Your task to perform on an android device: What's the weather going to be tomorrow? Image 0: 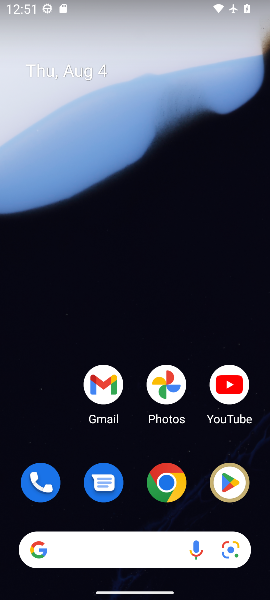
Step 0: drag from (129, 458) to (130, 130)
Your task to perform on an android device: What's the weather going to be tomorrow? Image 1: 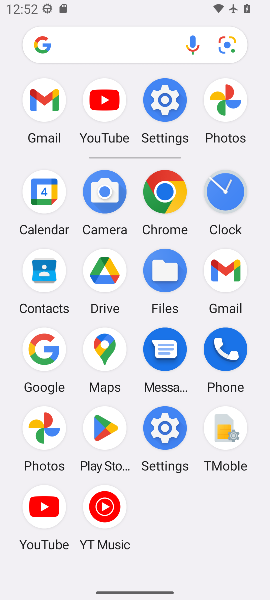
Step 1: click (56, 356)
Your task to perform on an android device: What's the weather going to be tomorrow? Image 2: 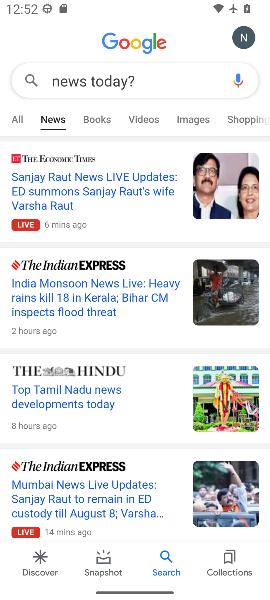
Step 2: click (151, 86)
Your task to perform on an android device: What's the weather going to be tomorrow? Image 3: 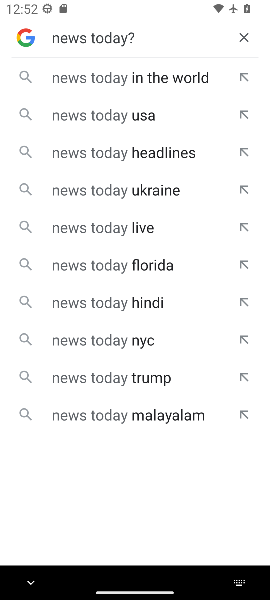
Step 3: click (237, 37)
Your task to perform on an android device: What's the weather going to be tomorrow? Image 4: 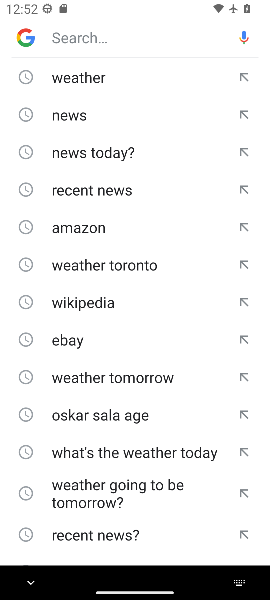
Step 4: click (129, 83)
Your task to perform on an android device: What's the weather going to be tomorrow? Image 5: 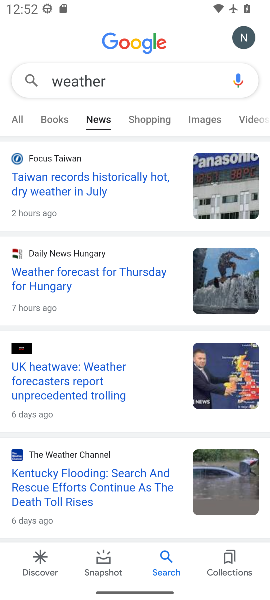
Step 5: click (25, 119)
Your task to perform on an android device: What's the weather going to be tomorrow? Image 6: 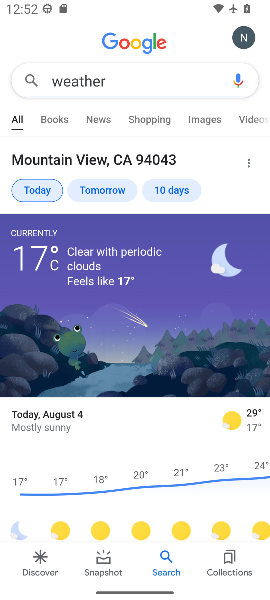
Step 6: click (111, 193)
Your task to perform on an android device: What's the weather going to be tomorrow? Image 7: 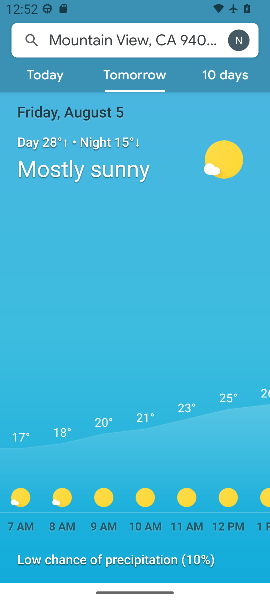
Step 7: task complete